Your task to perform on an android device: open a new tab in the chrome app Image 0: 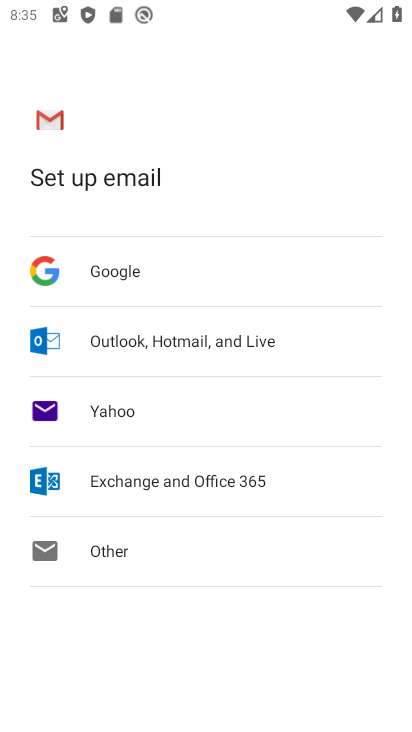
Step 0: press back button
Your task to perform on an android device: open a new tab in the chrome app Image 1: 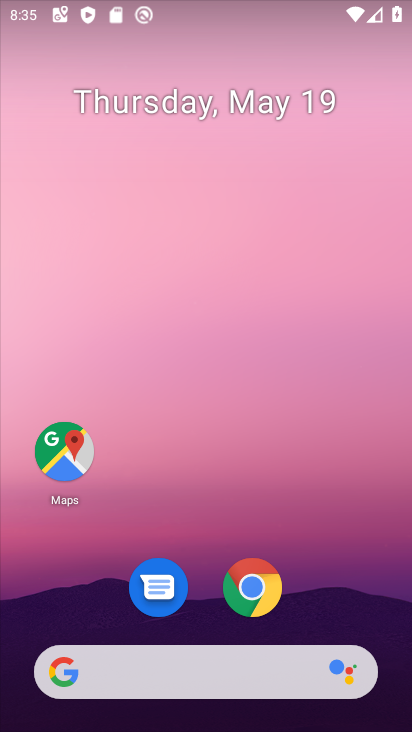
Step 1: drag from (356, 580) to (238, 7)
Your task to perform on an android device: open a new tab in the chrome app Image 2: 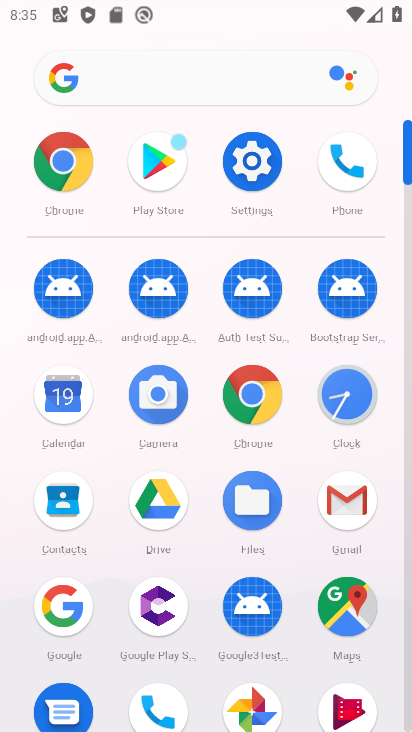
Step 2: click (56, 158)
Your task to perform on an android device: open a new tab in the chrome app Image 3: 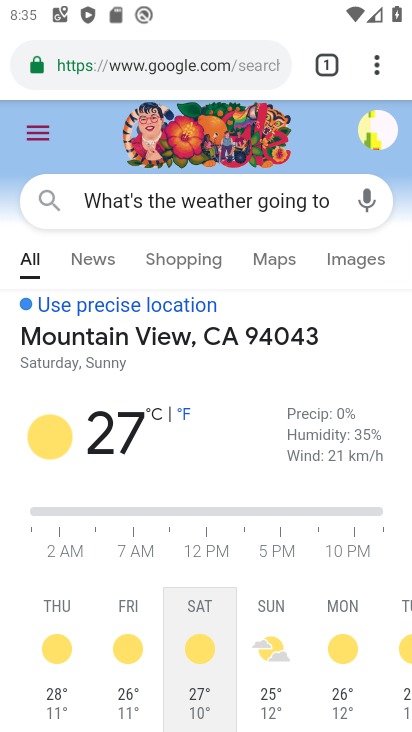
Step 3: task complete